Your task to perform on an android device: turn off translation in the chrome app Image 0: 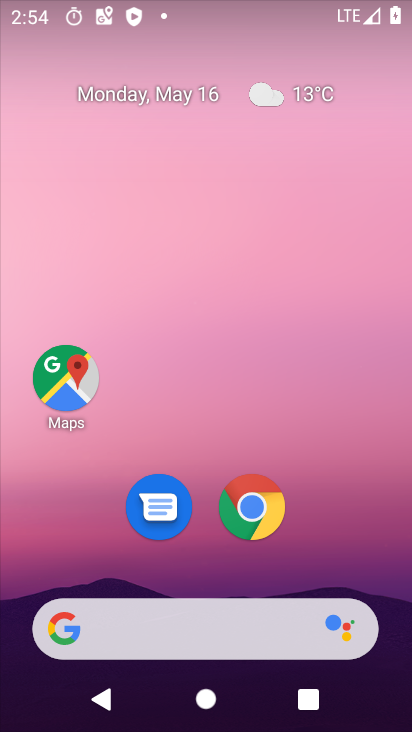
Step 0: drag from (375, 566) to (375, 88)
Your task to perform on an android device: turn off translation in the chrome app Image 1: 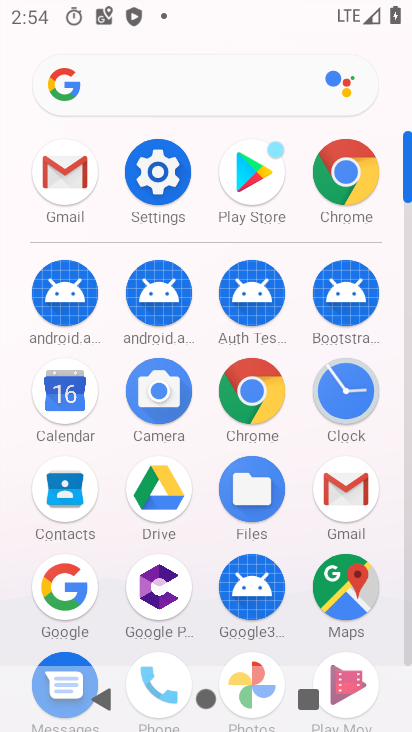
Step 1: click (364, 173)
Your task to perform on an android device: turn off translation in the chrome app Image 2: 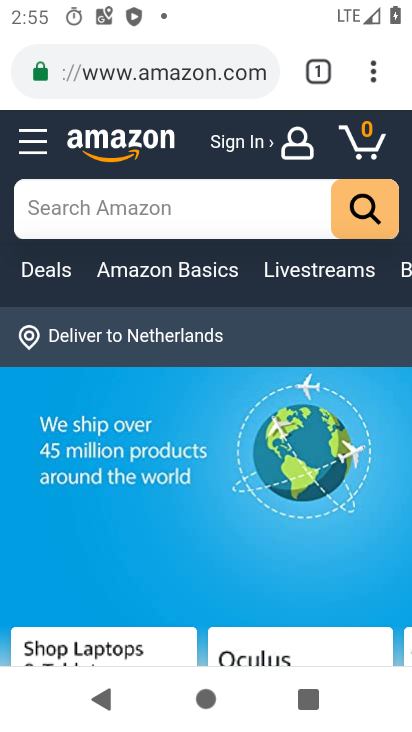
Step 2: click (375, 78)
Your task to perform on an android device: turn off translation in the chrome app Image 3: 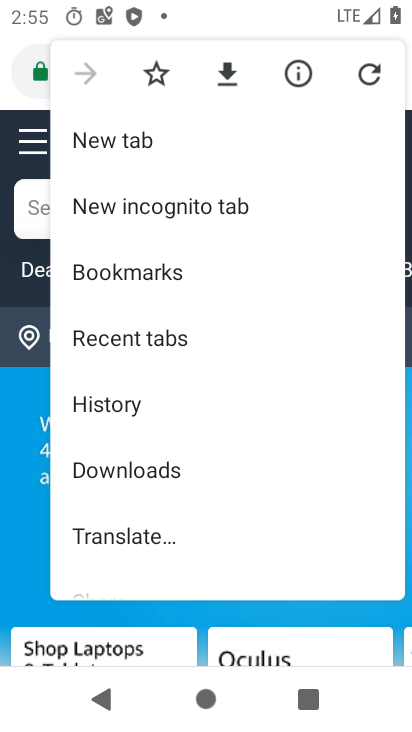
Step 3: drag from (314, 527) to (326, 288)
Your task to perform on an android device: turn off translation in the chrome app Image 4: 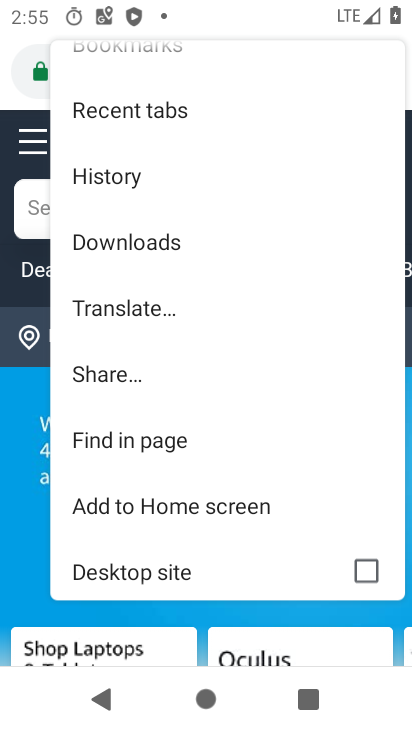
Step 4: drag from (298, 564) to (320, 350)
Your task to perform on an android device: turn off translation in the chrome app Image 5: 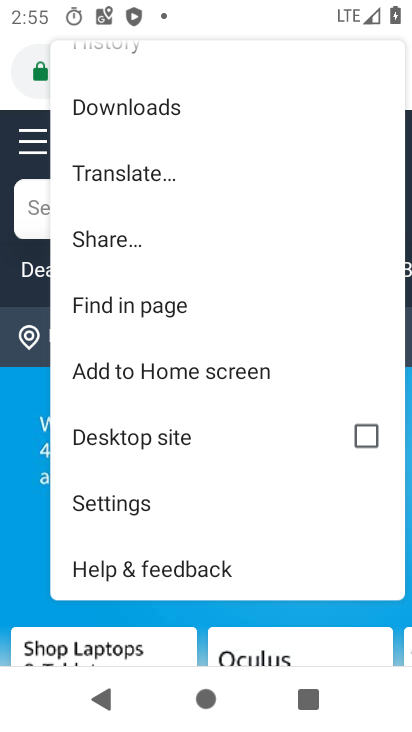
Step 5: click (146, 513)
Your task to perform on an android device: turn off translation in the chrome app Image 6: 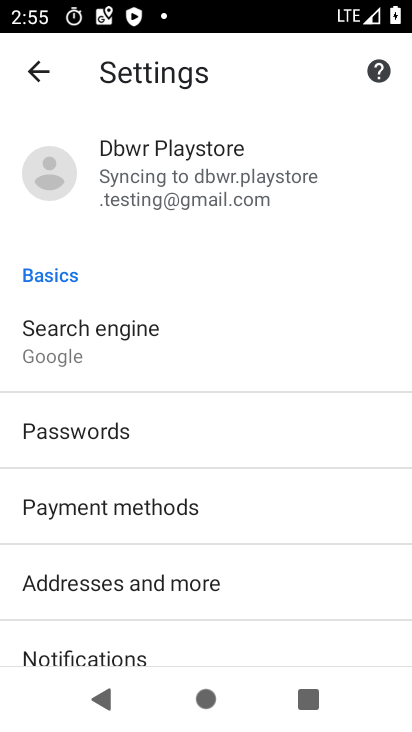
Step 6: drag from (311, 600) to (322, 441)
Your task to perform on an android device: turn off translation in the chrome app Image 7: 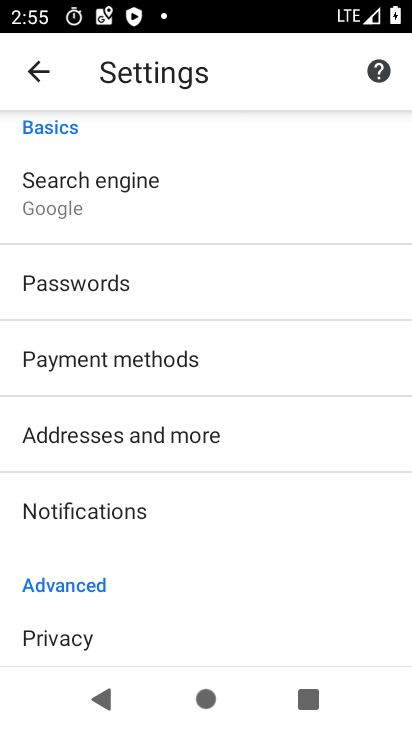
Step 7: drag from (305, 597) to (307, 442)
Your task to perform on an android device: turn off translation in the chrome app Image 8: 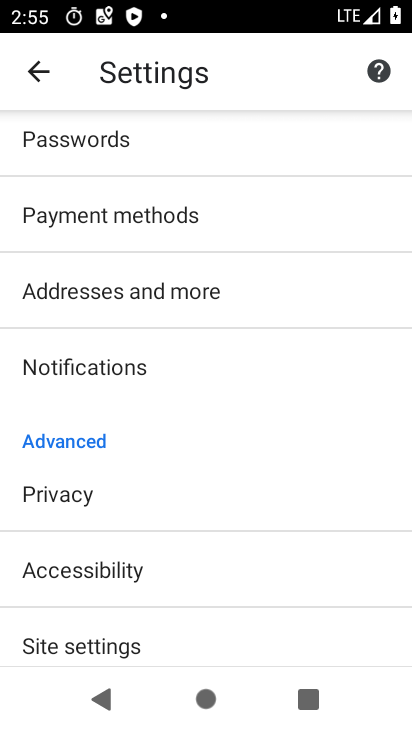
Step 8: drag from (294, 620) to (298, 455)
Your task to perform on an android device: turn off translation in the chrome app Image 9: 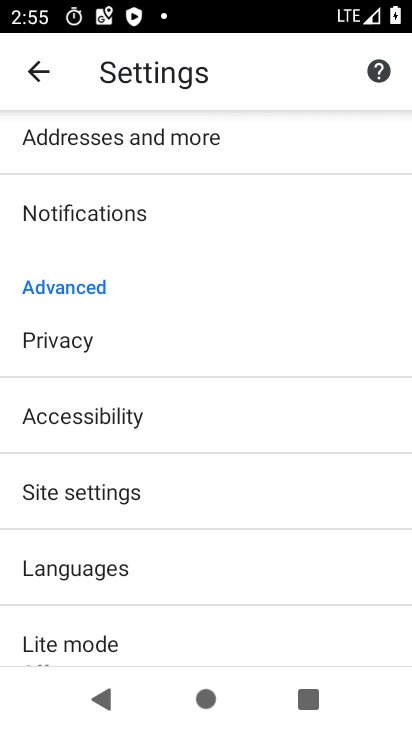
Step 9: drag from (277, 619) to (284, 466)
Your task to perform on an android device: turn off translation in the chrome app Image 10: 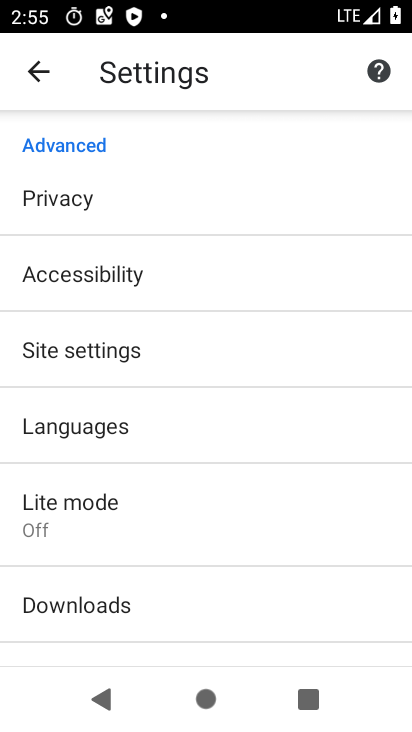
Step 10: click (224, 420)
Your task to perform on an android device: turn off translation in the chrome app Image 11: 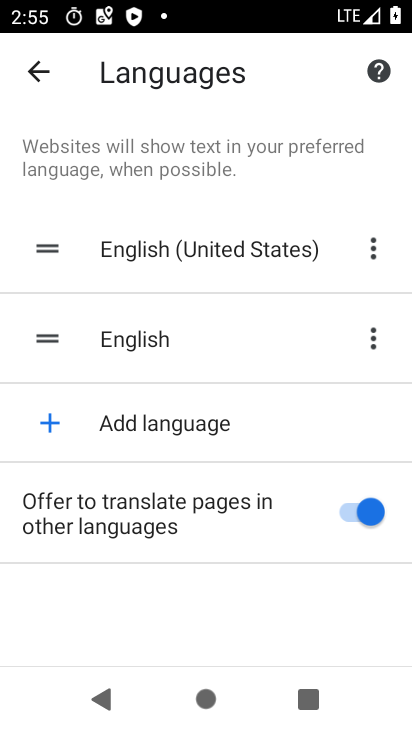
Step 11: click (361, 517)
Your task to perform on an android device: turn off translation in the chrome app Image 12: 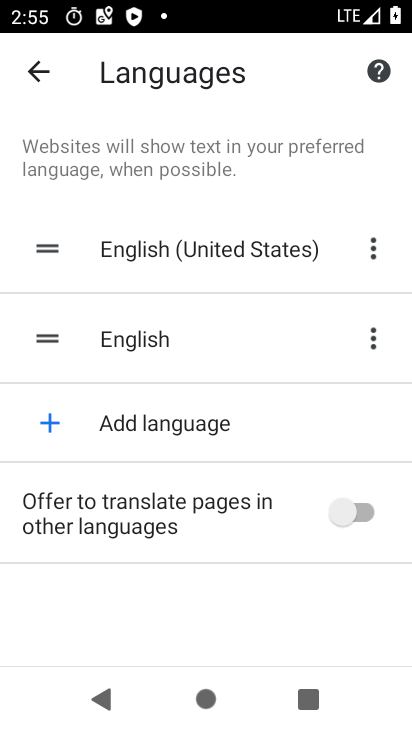
Step 12: task complete